Your task to perform on an android device: turn on bluetooth scan Image 0: 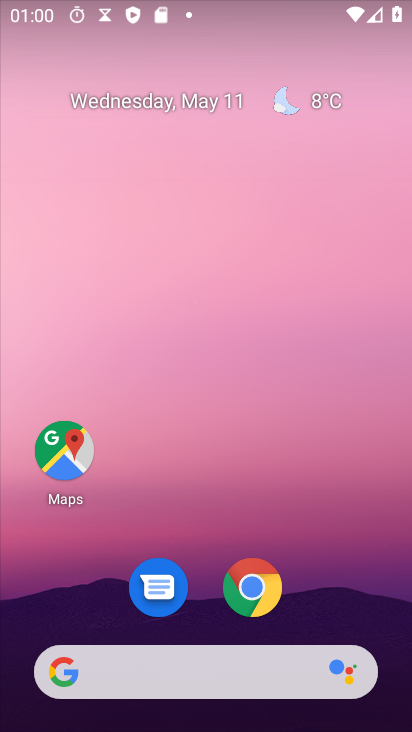
Step 0: drag from (332, 573) to (255, 239)
Your task to perform on an android device: turn on bluetooth scan Image 1: 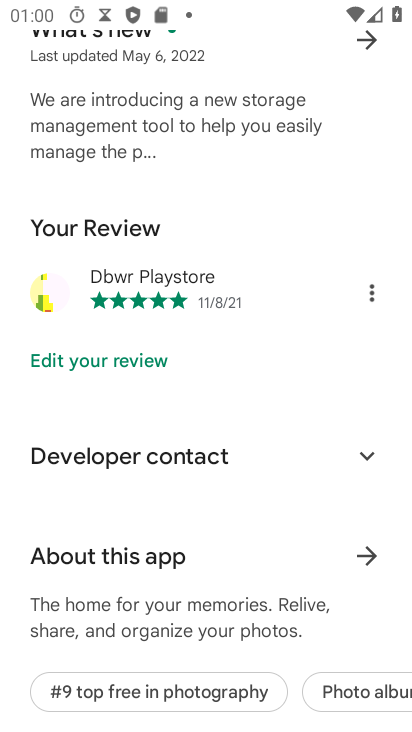
Step 1: press home button
Your task to perform on an android device: turn on bluetooth scan Image 2: 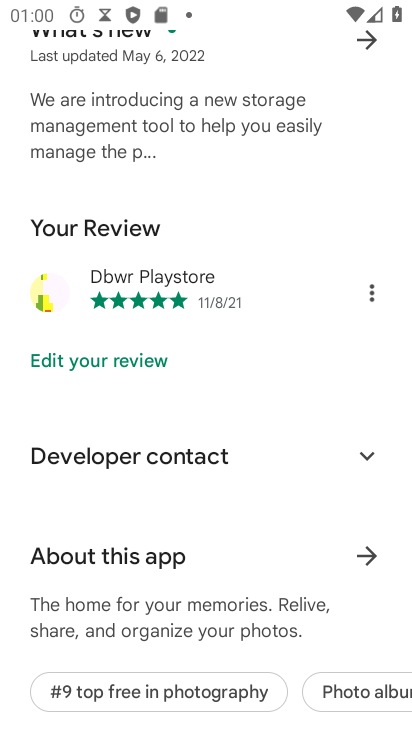
Step 2: press home button
Your task to perform on an android device: turn on bluetooth scan Image 3: 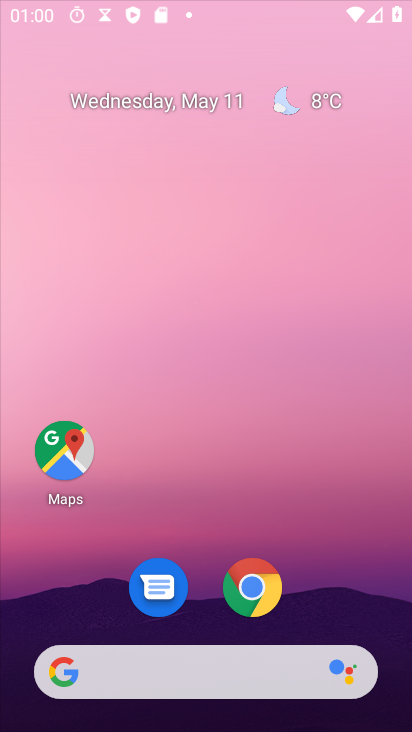
Step 3: press home button
Your task to perform on an android device: turn on bluetooth scan Image 4: 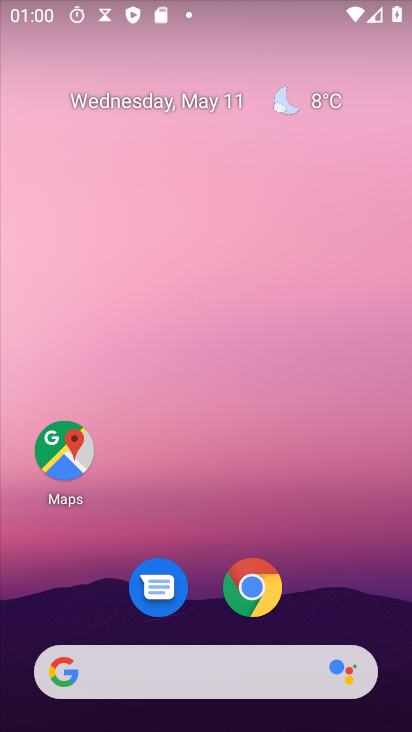
Step 4: drag from (370, 458) to (200, 24)
Your task to perform on an android device: turn on bluetooth scan Image 5: 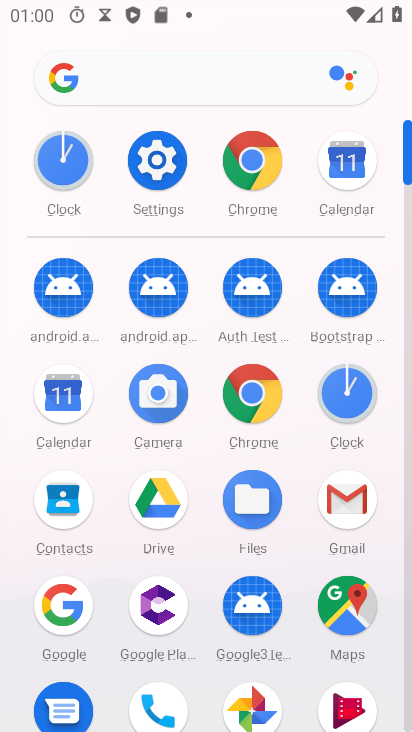
Step 5: click (161, 180)
Your task to perform on an android device: turn on bluetooth scan Image 6: 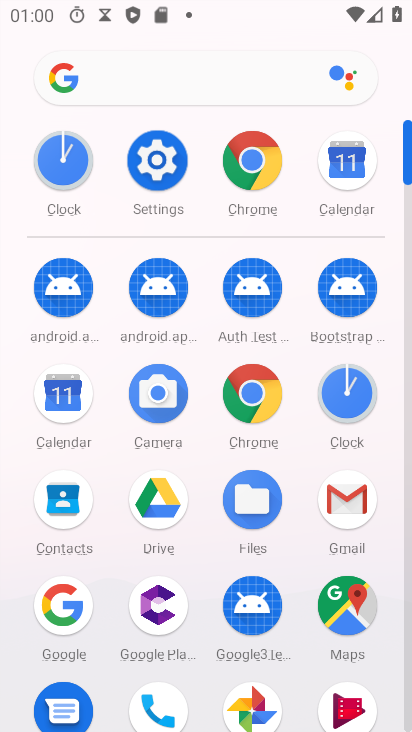
Step 6: click (160, 176)
Your task to perform on an android device: turn on bluetooth scan Image 7: 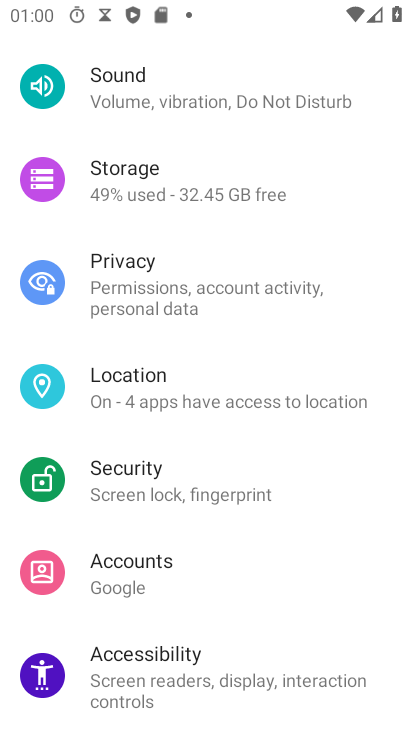
Step 7: click (164, 393)
Your task to perform on an android device: turn on bluetooth scan Image 8: 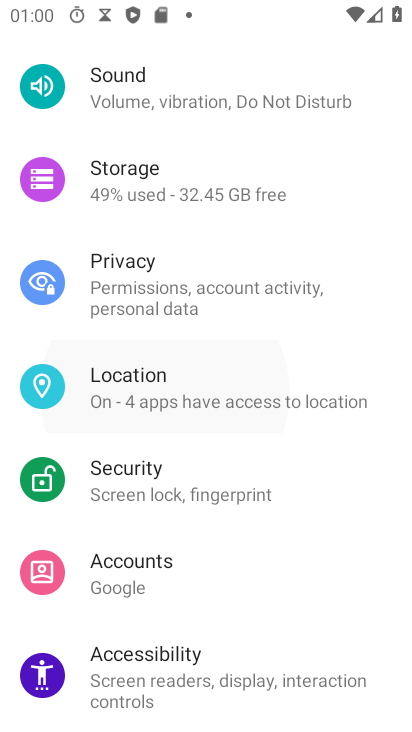
Step 8: click (164, 393)
Your task to perform on an android device: turn on bluetooth scan Image 9: 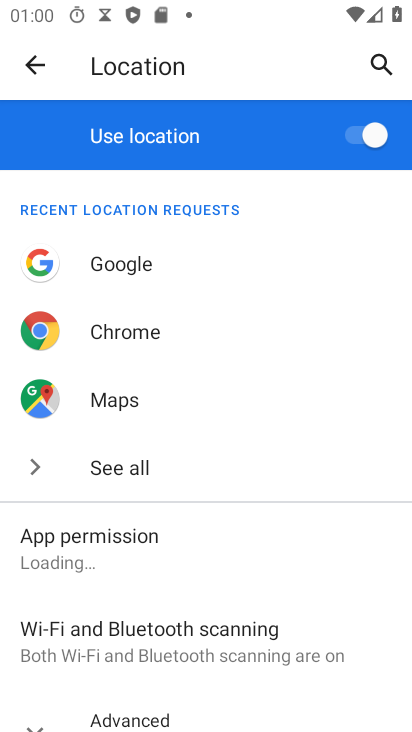
Step 9: click (126, 630)
Your task to perform on an android device: turn on bluetooth scan Image 10: 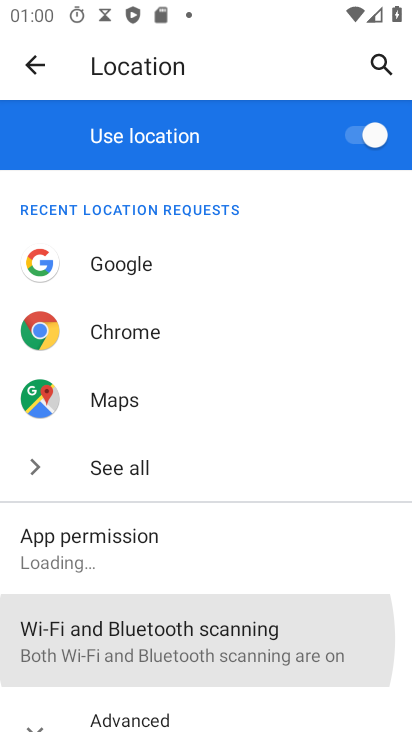
Step 10: click (126, 630)
Your task to perform on an android device: turn on bluetooth scan Image 11: 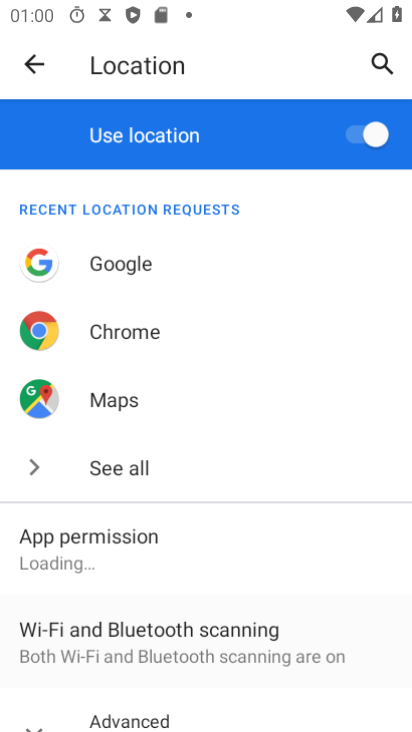
Step 11: click (126, 630)
Your task to perform on an android device: turn on bluetooth scan Image 12: 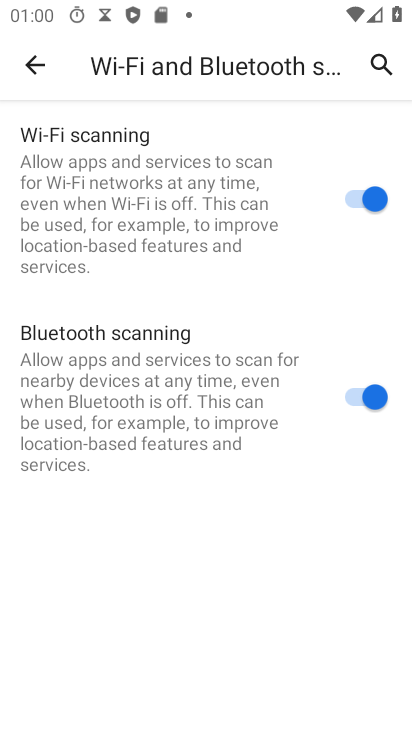
Step 12: task complete